Your task to perform on an android device: delete a single message in the gmail app Image 0: 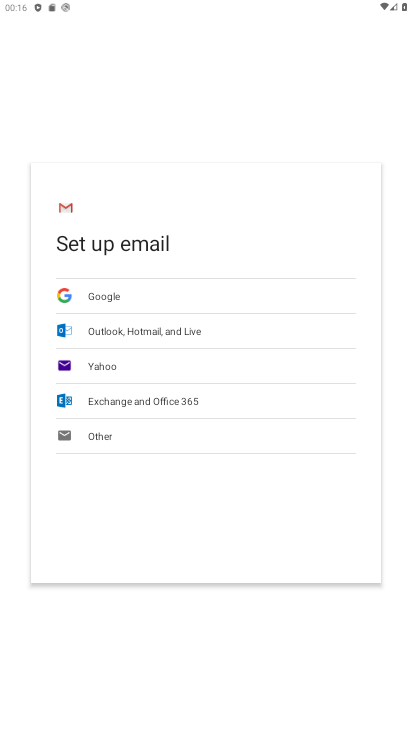
Step 0: drag from (289, 623) to (220, 24)
Your task to perform on an android device: delete a single message in the gmail app Image 1: 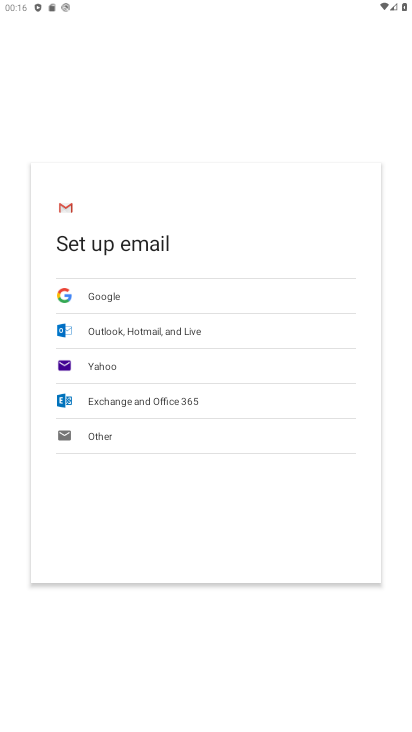
Step 1: press home button
Your task to perform on an android device: delete a single message in the gmail app Image 2: 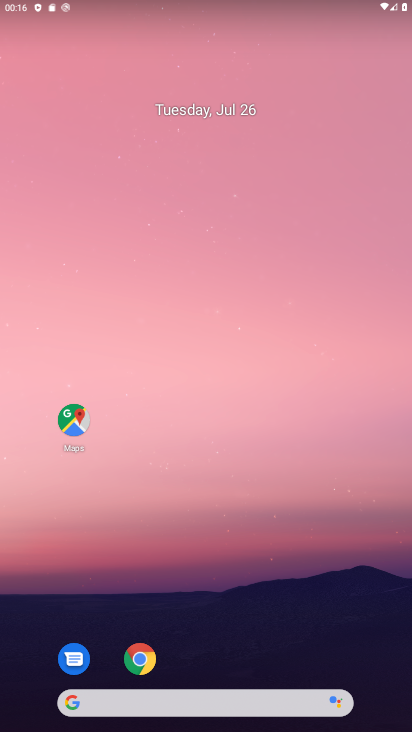
Step 2: drag from (333, 573) to (153, 4)
Your task to perform on an android device: delete a single message in the gmail app Image 3: 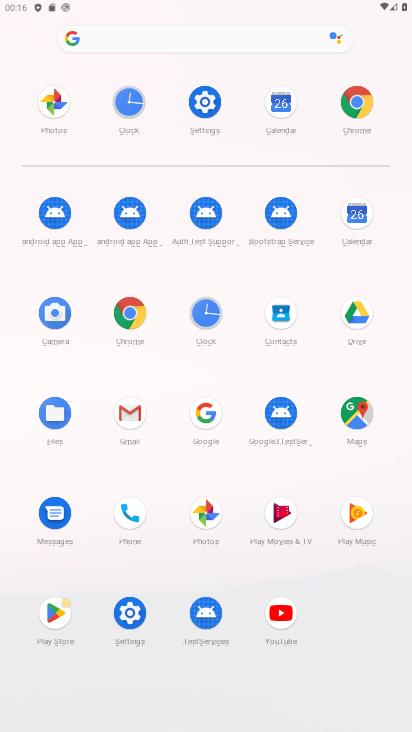
Step 3: click (129, 420)
Your task to perform on an android device: delete a single message in the gmail app Image 4: 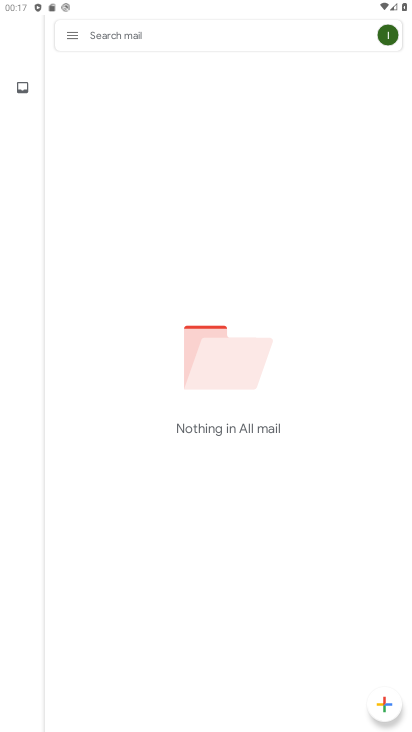
Step 4: press home button
Your task to perform on an android device: delete a single message in the gmail app Image 5: 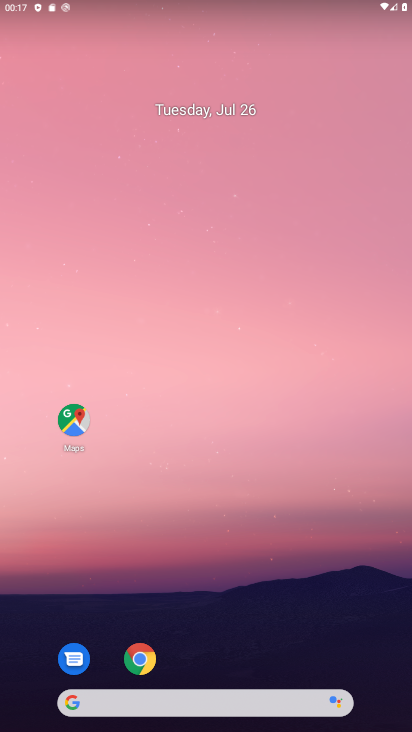
Step 5: drag from (292, 431) to (218, 22)
Your task to perform on an android device: delete a single message in the gmail app Image 6: 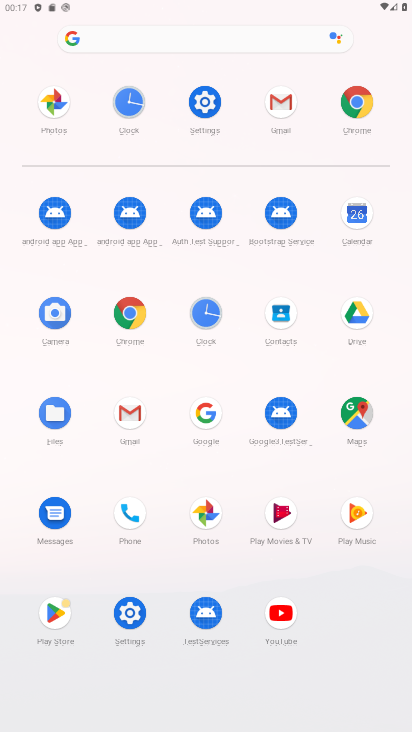
Step 6: click (122, 411)
Your task to perform on an android device: delete a single message in the gmail app Image 7: 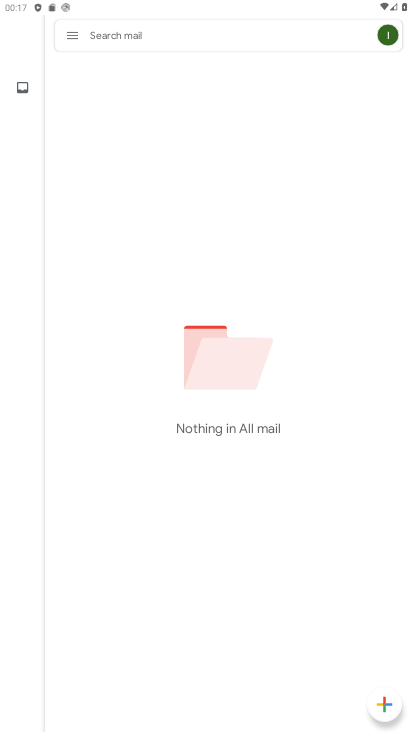
Step 7: task complete